Your task to perform on an android device: Open Google Chrome and click the shortcut for Amazon.com Image 0: 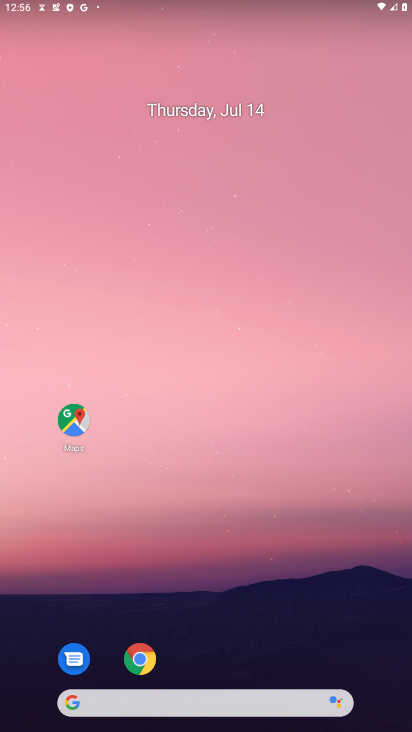
Step 0: click (145, 663)
Your task to perform on an android device: Open Google Chrome and click the shortcut for Amazon.com Image 1: 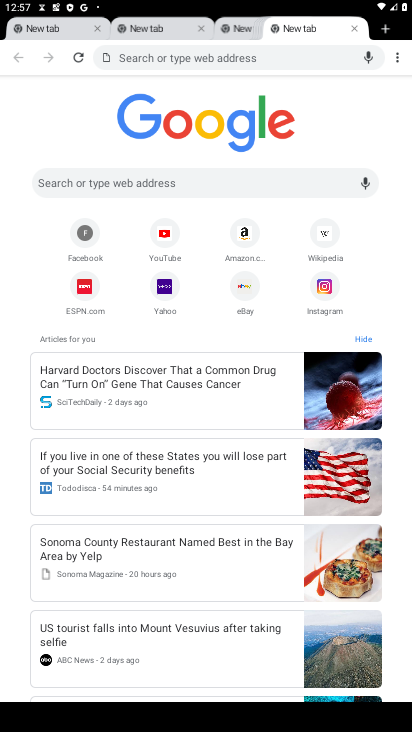
Step 1: click (233, 237)
Your task to perform on an android device: Open Google Chrome and click the shortcut for Amazon.com Image 2: 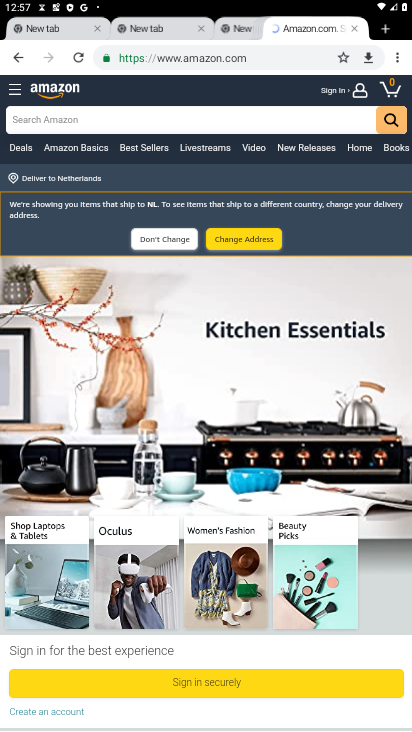
Step 2: task complete